Your task to perform on an android device: Open the phone app and click the voicemail tab. Image 0: 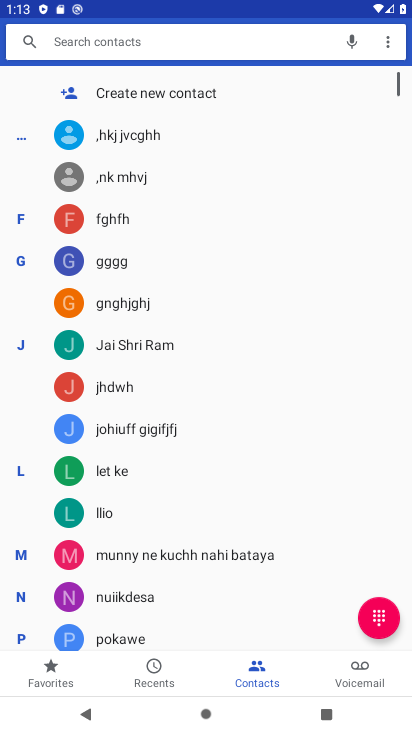
Step 0: click (338, 679)
Your task to perform on an android device: Open the phone app and click the voicemail tab. Image 1: 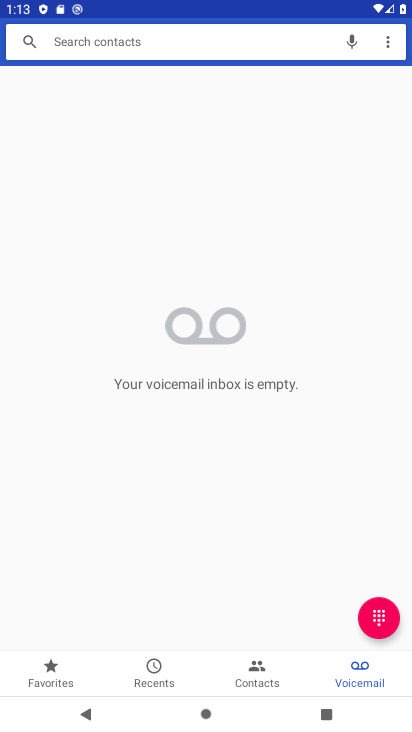
Step 1: task complete